Your task to perform on an android device: Open ESPN.com Image 0: 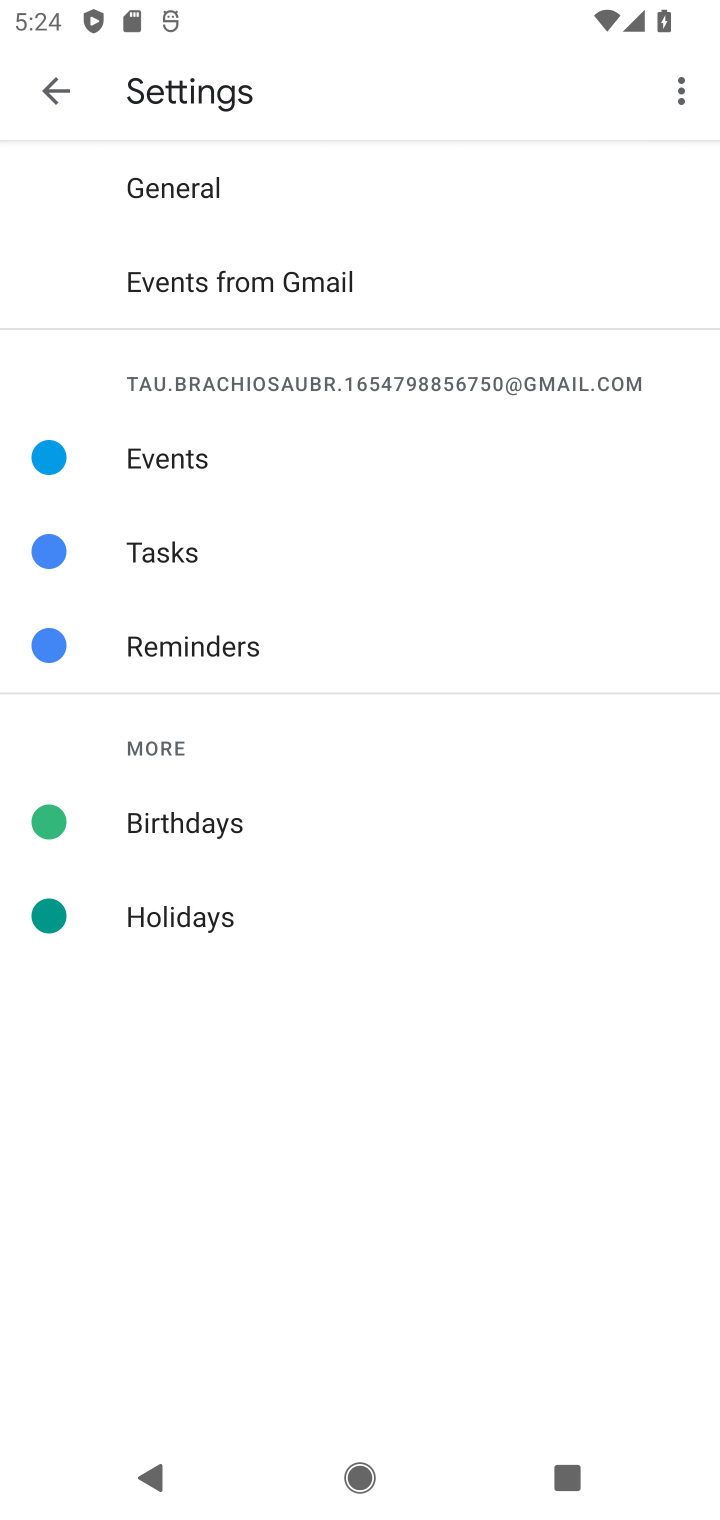
Step 0: press home button
Your task to perform on an android device: Open ESPN.com Image 1: 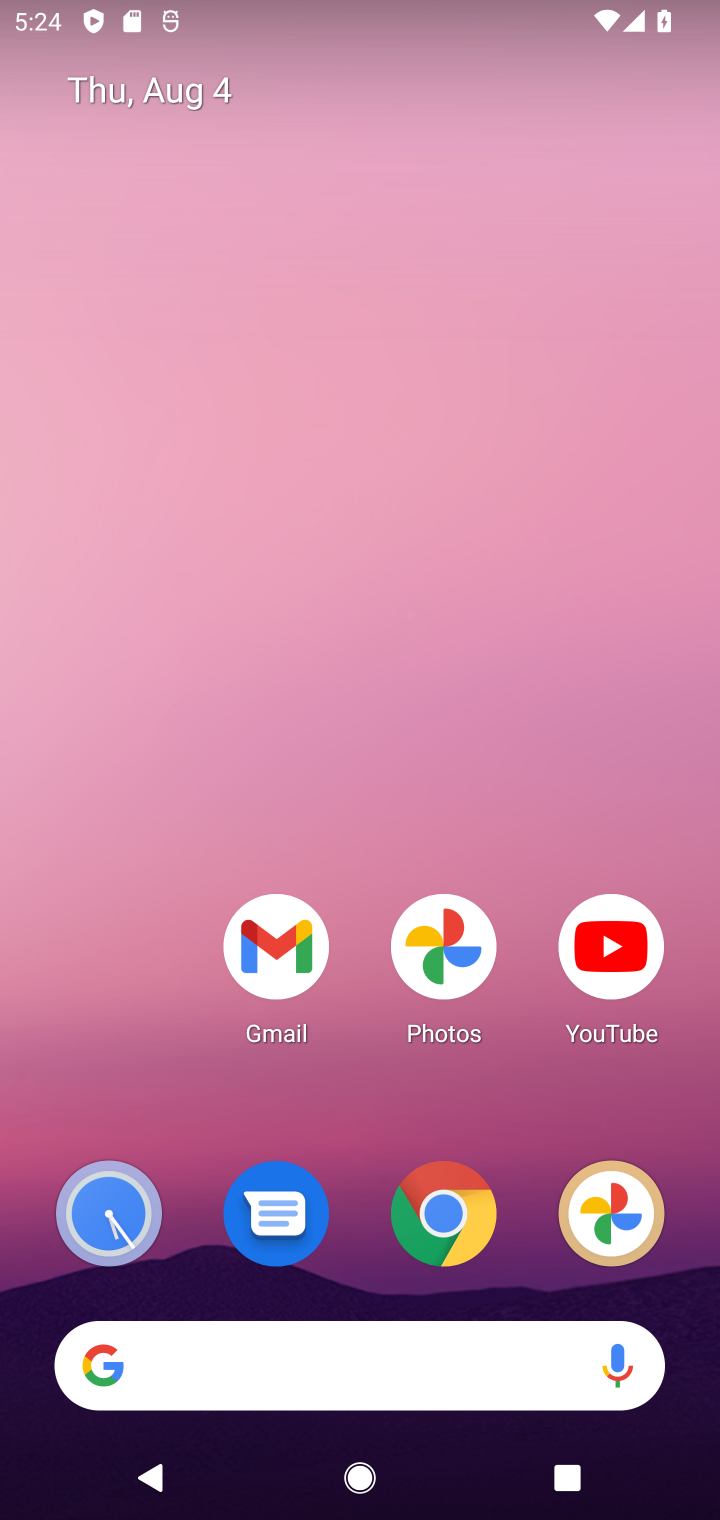
Step 1: click (450, 1193)
Your task to perform on an android device: Open ESPN.com Image 2: 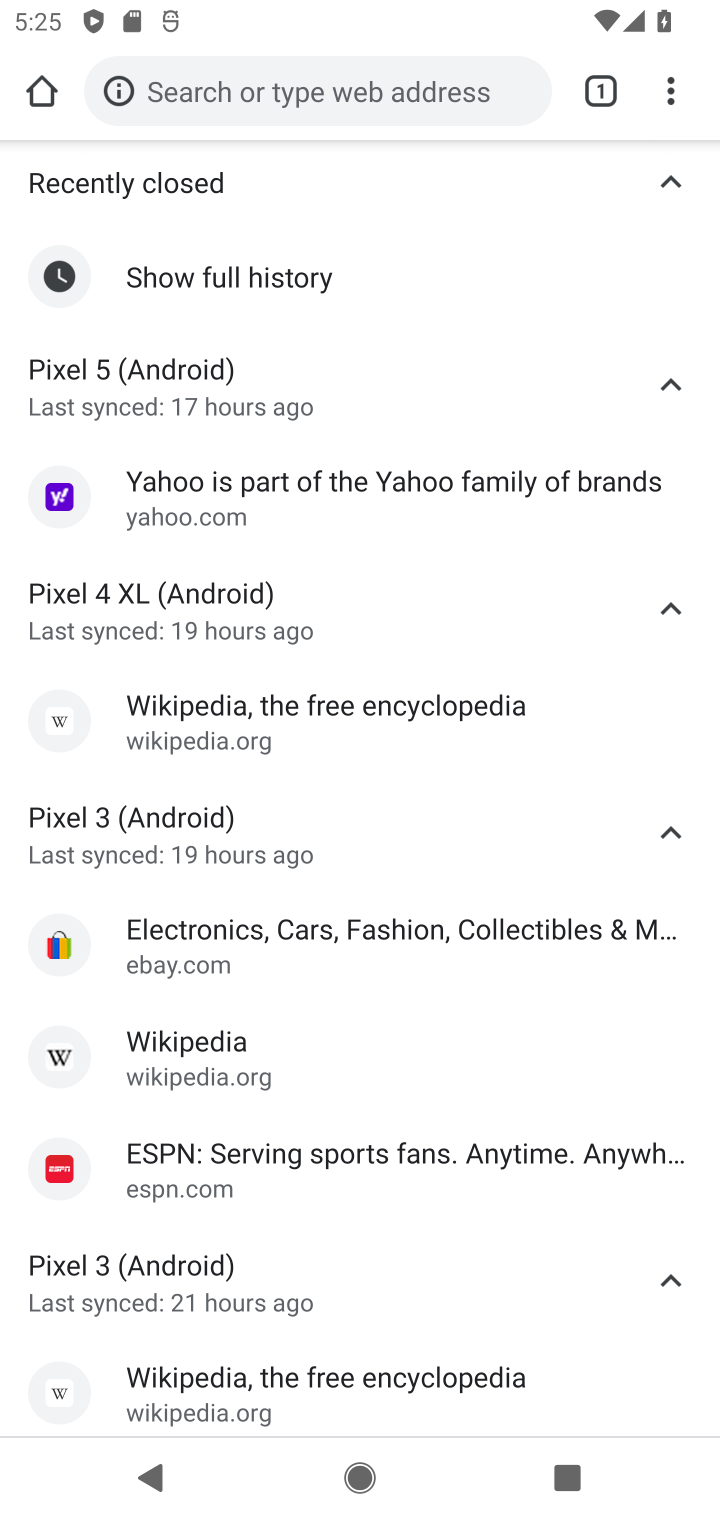
Step 2: click (467, 1180)
Your task to perform on an android device: Open ESPN.com Image 3: 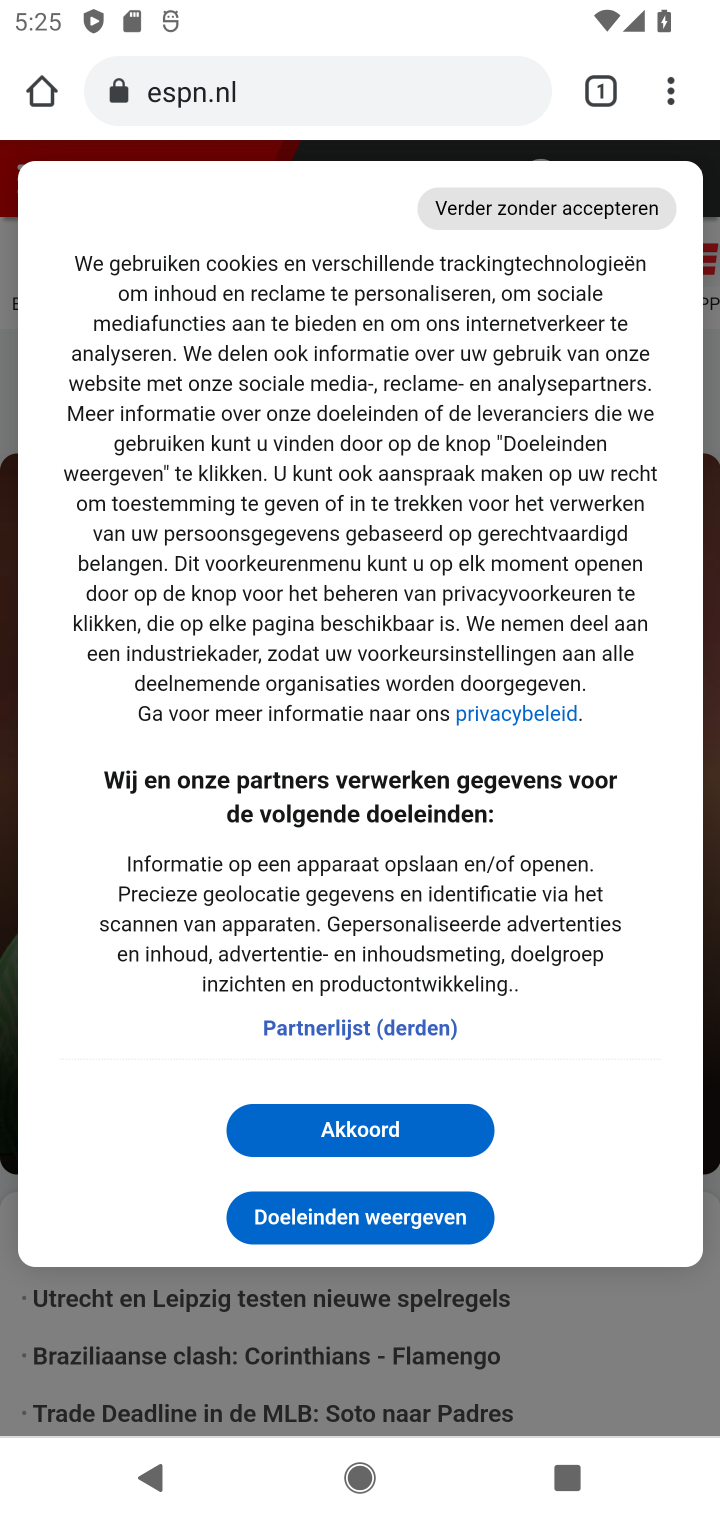
Step 3: task complete